Your task to perform on an android device: Open sound settings Image 0: 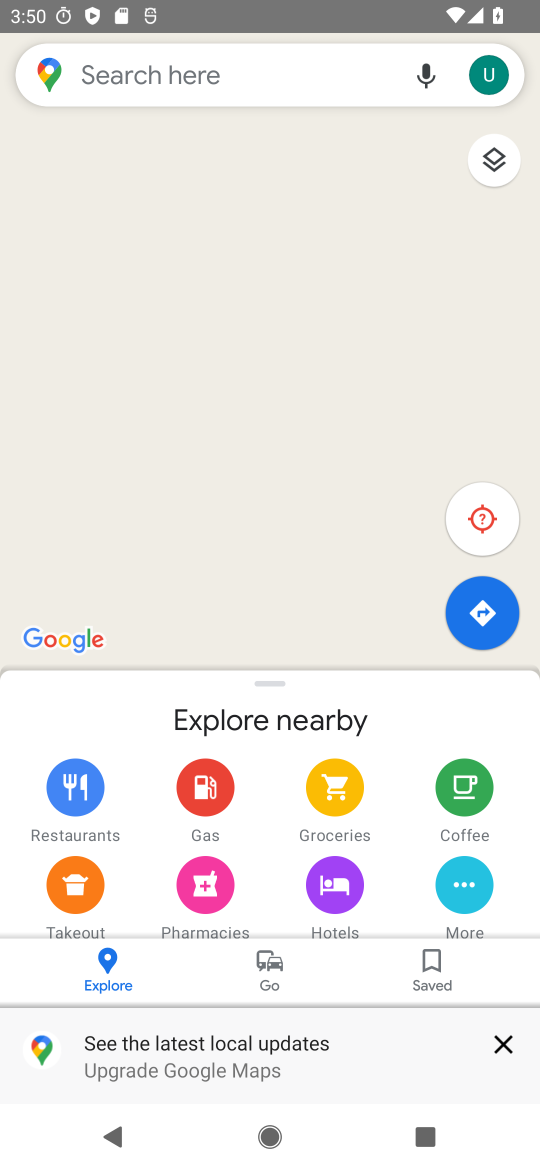
Step 0: press home button
Your task to perform on an android device: Open sound settings Image 1: 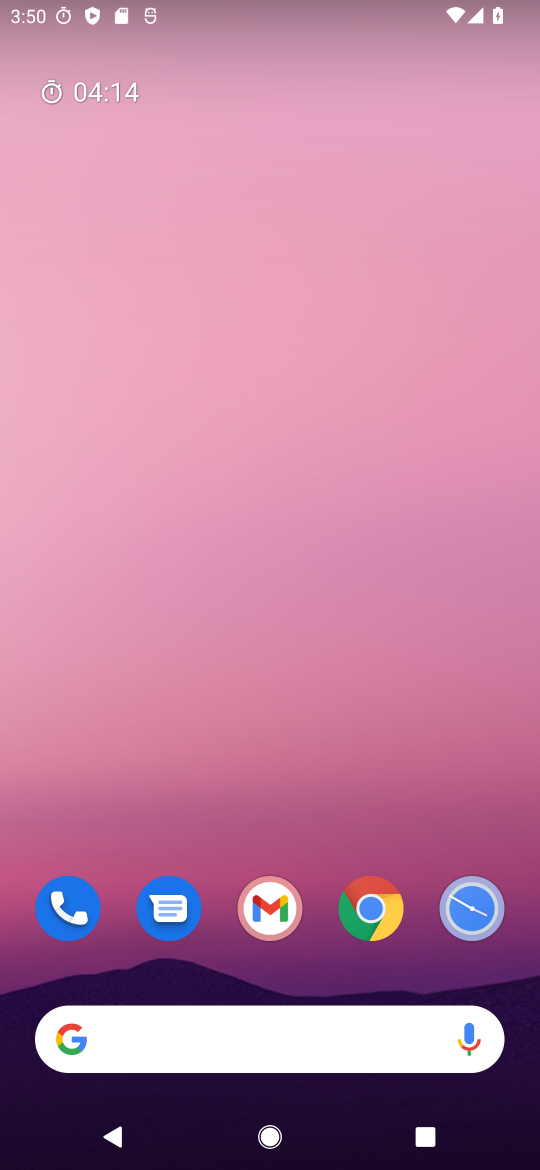
Step 1: drag from (333, 860) to (311, 317)
Your task to perform on an android device: Open sound settings Image 2: 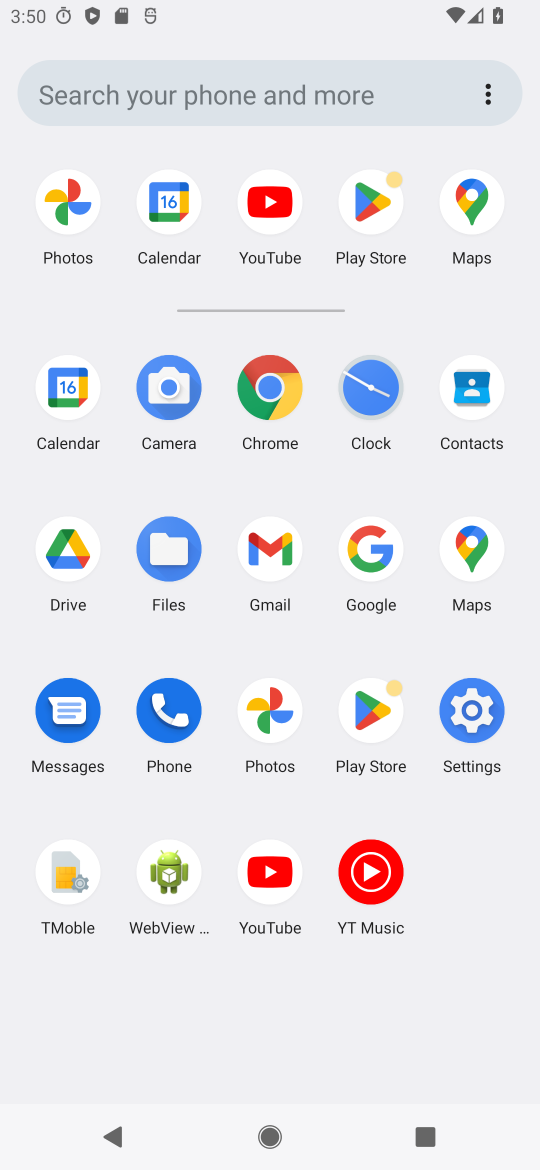
Step 2: click (470, 701)
Your task to perform on an android device: Open sound settings Image 3: 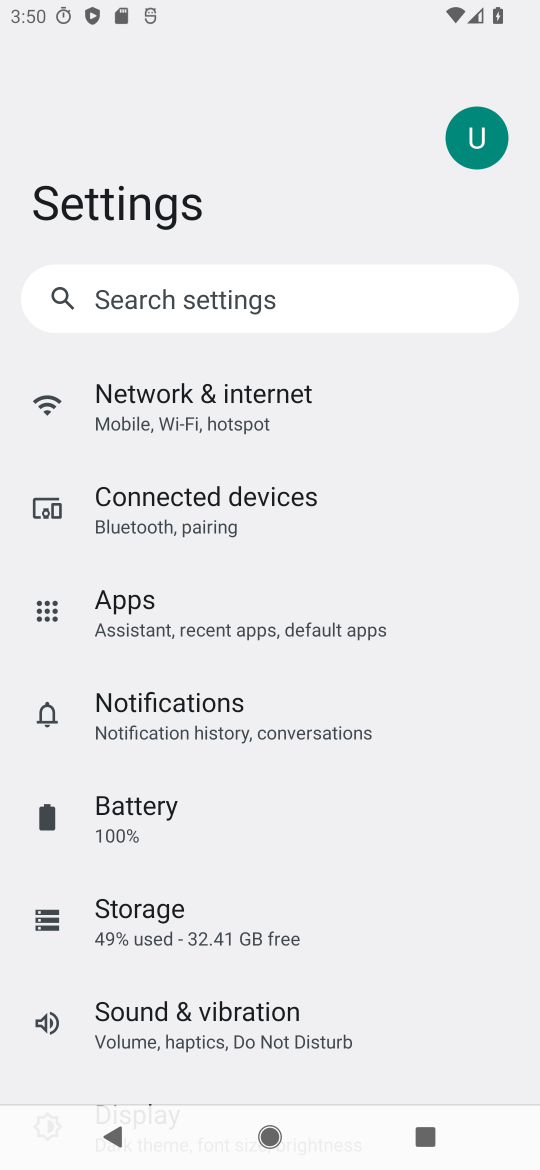
Step 3: click (333, 1021)
Your task to perform on an android device: Open sound settings Image 4: 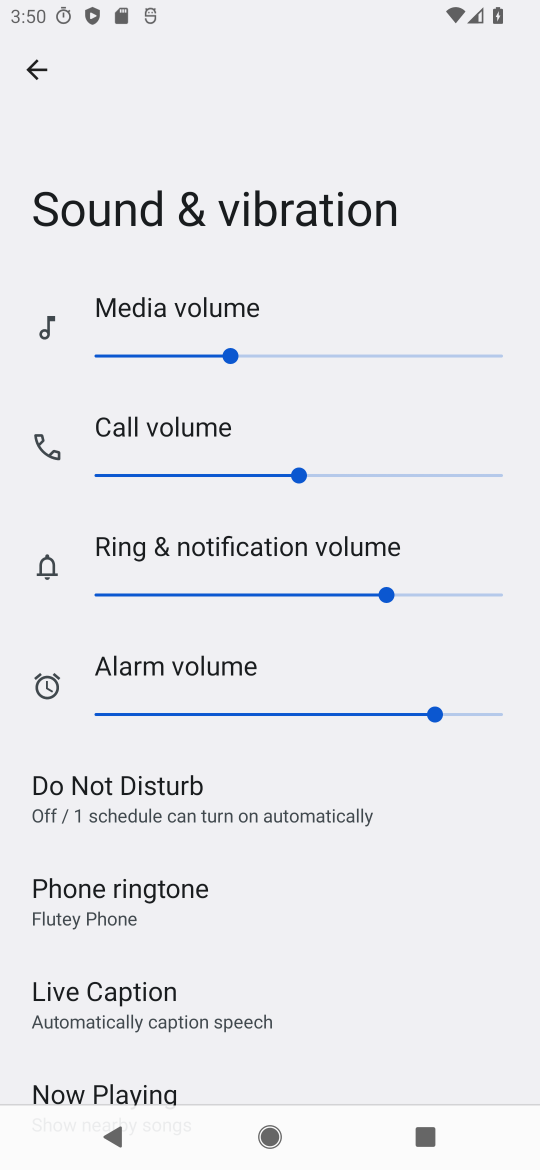
Step 4: task complete